Your task to perform on an android device: open device folders in google photos Image 0: 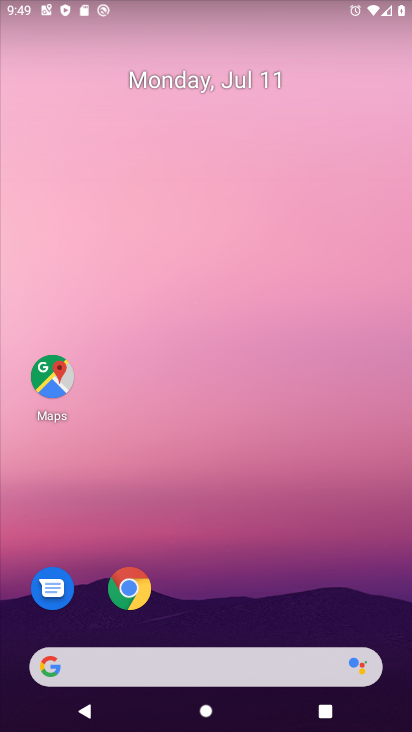
Step 0: drag from (221, 629) to (327, 21)
Your task to perform on an android device: open device folders in google photos Image 1: 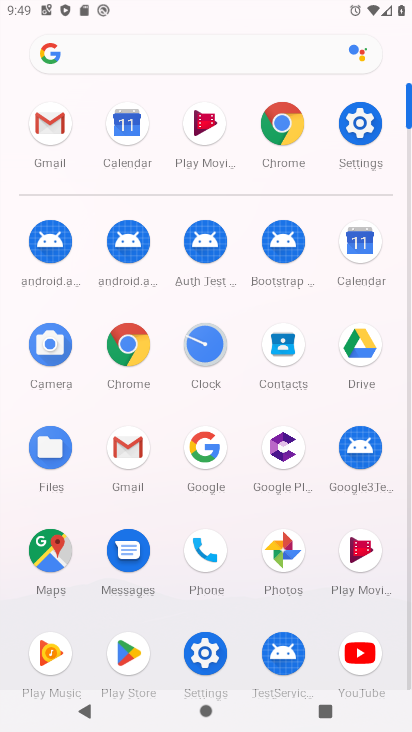
Step 1: click (289, 555)
Your task to perform on an android device: open device folders in google photos Image 2: 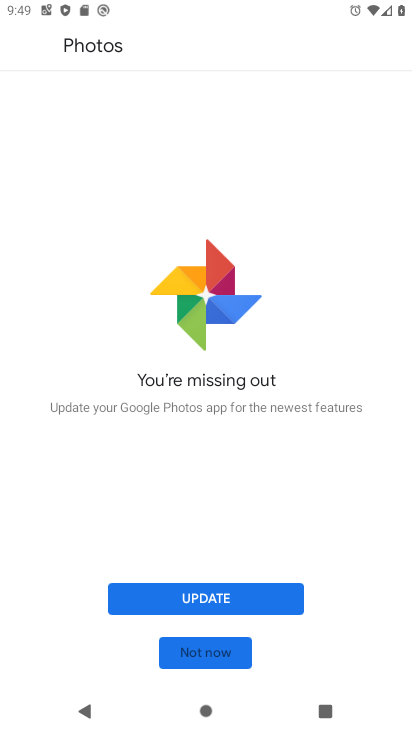
Step 2: click (233, 656)
Your task to perform on an android device: open device folders in google photos Image 3: 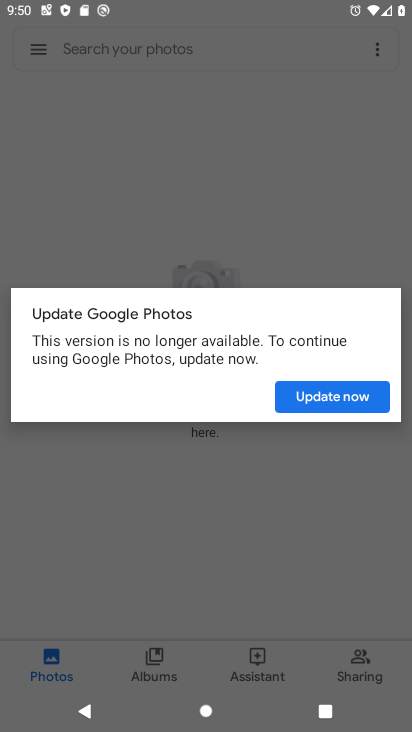
Step 3: click (337, 396)
Your task to perform on an android device: open device folders in google photos Image 4: 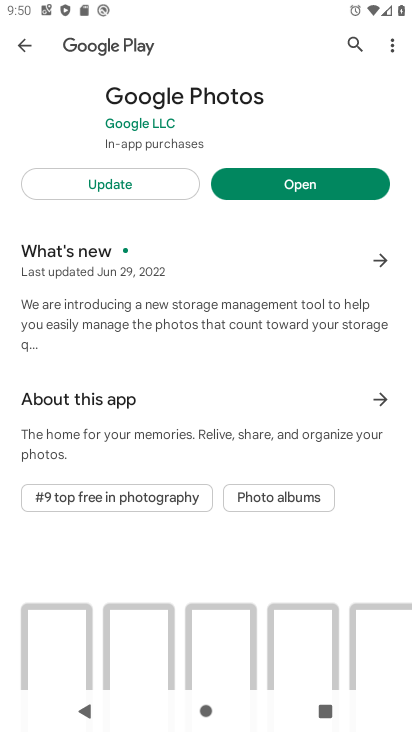
Step 4: press home button
Your task to perform on an android device: open device folders in google photos Image 5: 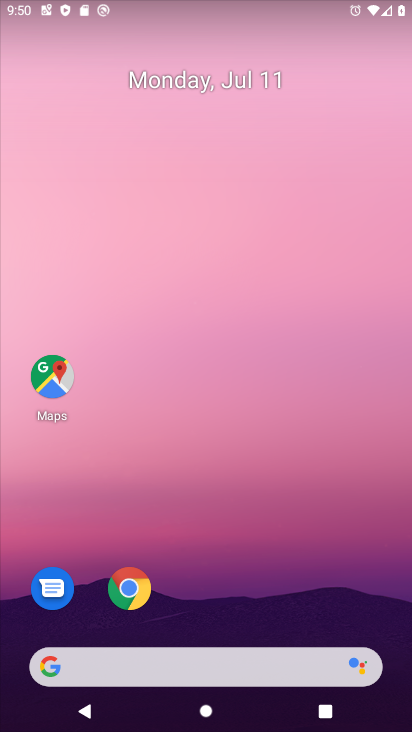
Step 5: drag from (257, 563) to (315, 4)
Your task to perform on an android device: open device folders in google photos Image 6: 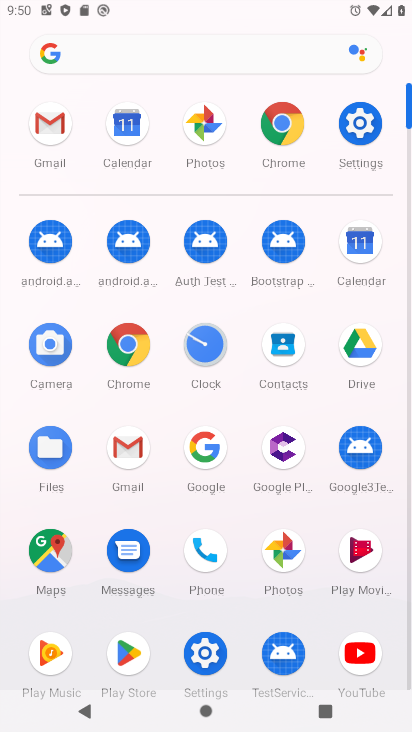
Step 6: click (272, 557)
Your task to perform on an android device: open device folders in google photos Image 7: 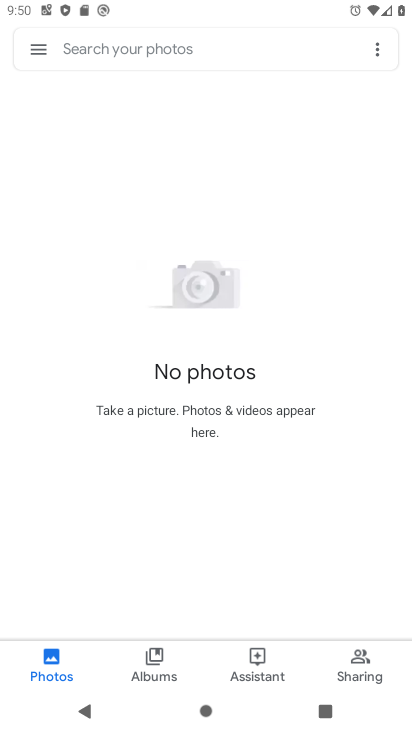
Step 7: click (24, 53)
Your task to perform on an android device: open device folders in google photos Image 8: 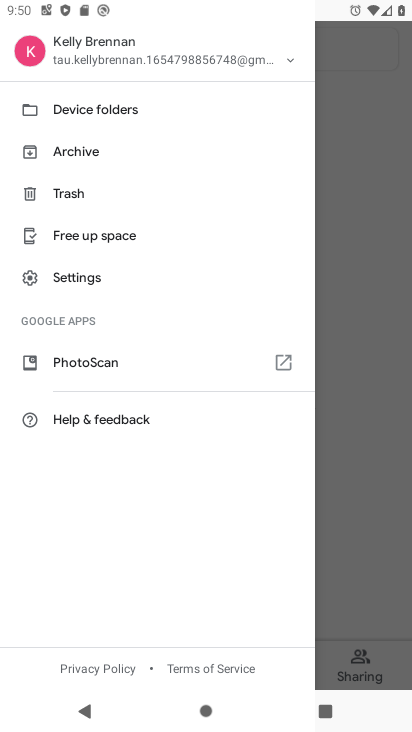
Step 8: click (98, 109)
Your task to perform on an android device: open device folders in google photos Image 9: 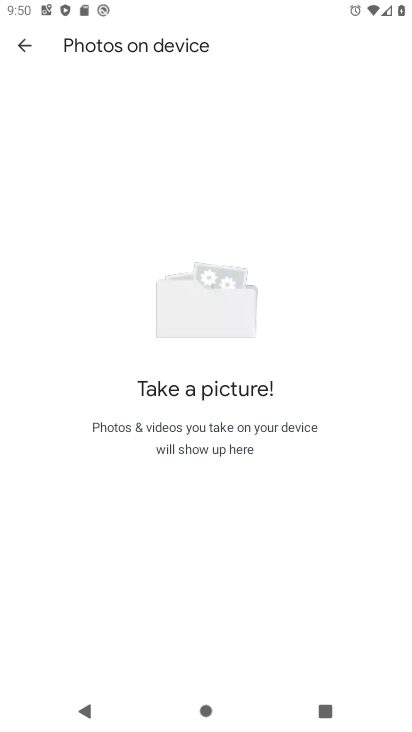
Step 9: task complete